Your task to perform on an android device: turn on the 24-hour format for clock Image 0: 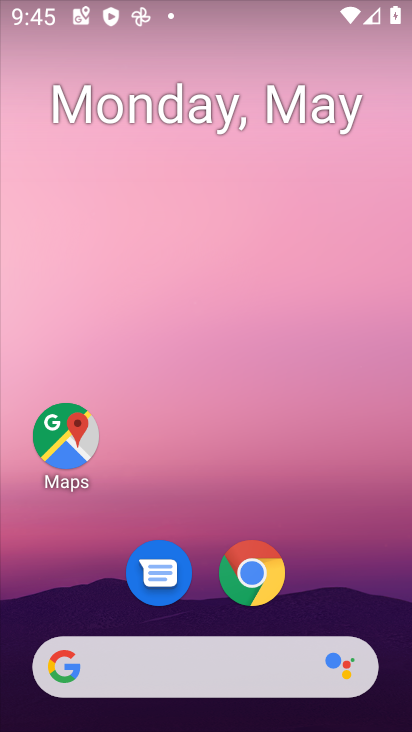
Step 0: drag from (358, 588) to (312, 44)
Your task to perform on an android device: turn on the 24-hour format for clock Image 1: 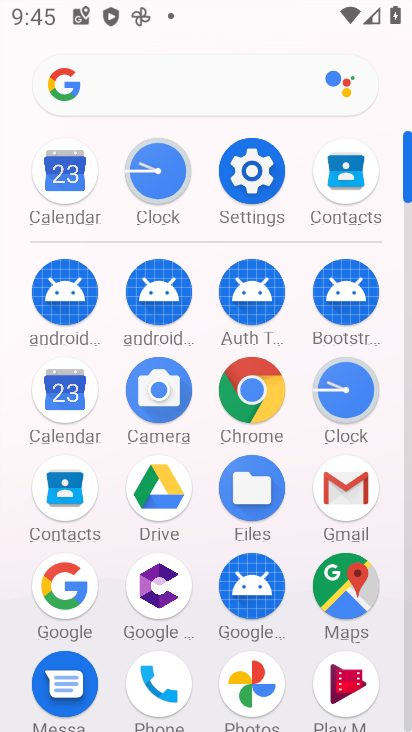
Step 1: click (182, 209)
Your task to perform on an android device: turn on the 24-hour format for clock Image 2: 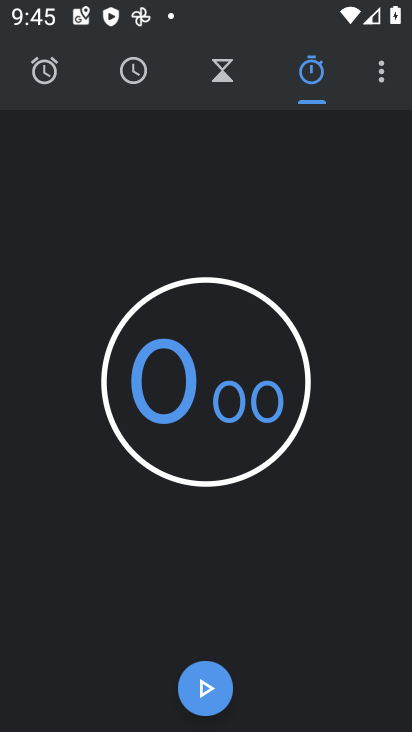
Step 2: click (385, 69)
Your task to perform on an android device: turn on the 24-hour format for clock Image 3: 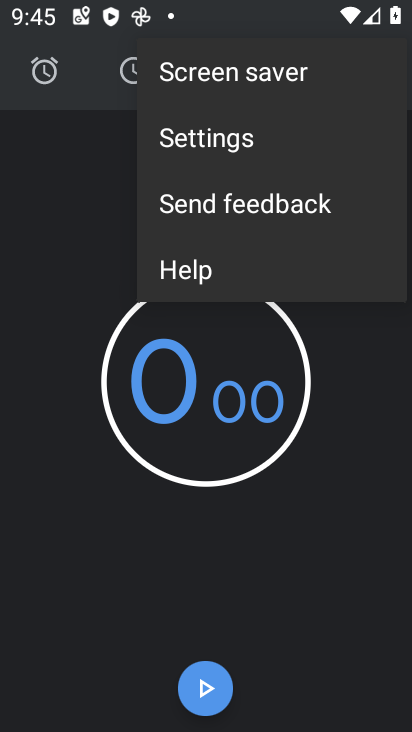
Step 3: click (257, 152)
Your task to perform on an android device: turn on the 24-hour format for clock Image 4: 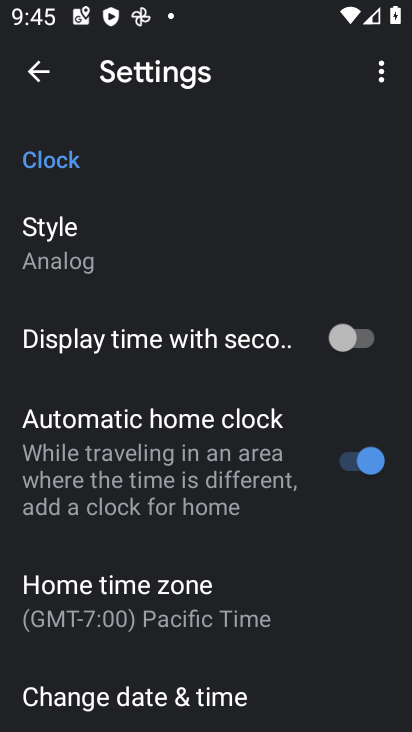
Step 4: drag from (204, 620) to (180, 288)
Your task to perform on an android device: turn on the 24-hour format for clock Image 5: 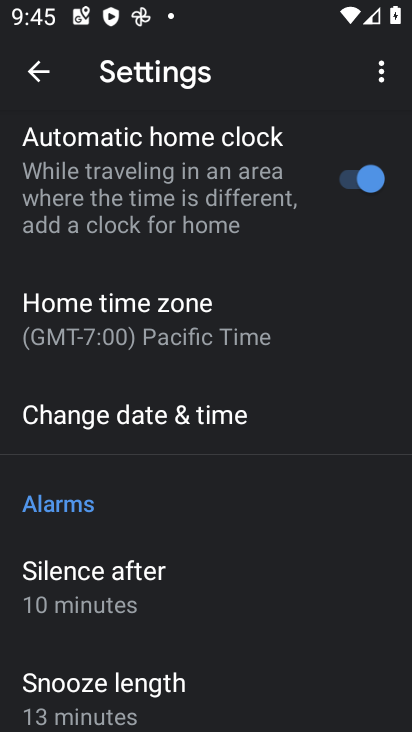
Step 5: click (238, 423)
Your task to perform on an android device: turn on the 24-hour format for clock Image 6: 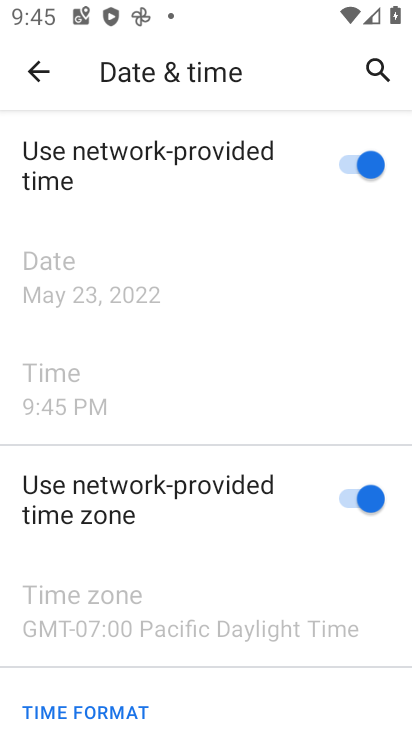
Step 6: drag from (172, 547) to (188, 223)
Your task to perform on an android device: turn on the 24-hour format for clock Image 7: 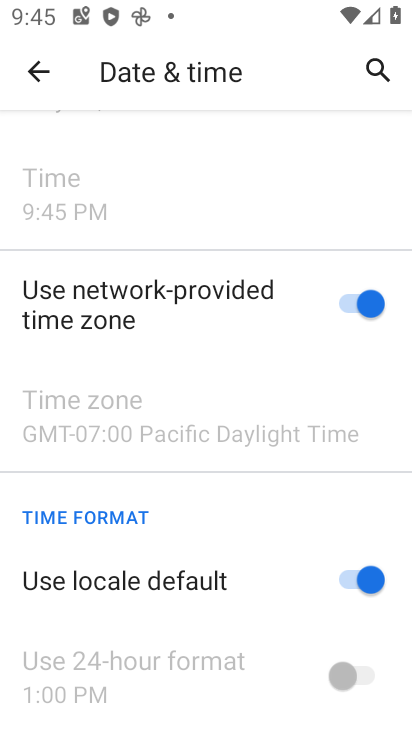
Step 7: click (331, 592)
Your task to perform on an android device: turn on the 24-hour format for clock Image 8: 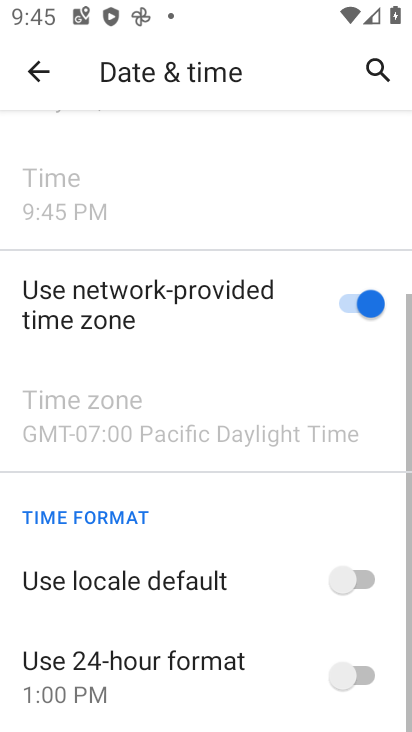
Step 8: click (337, 660)
Your task to perform on an android device: turn on the 24-hour format for clock Image 9: 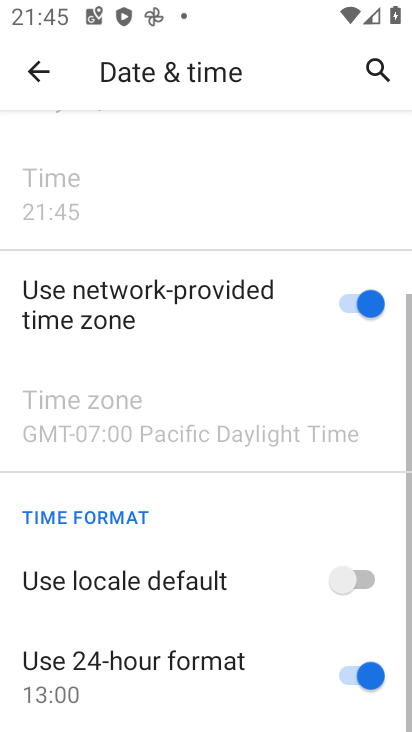
Step 9: task complete